Your task to perform on an android device: Open privacy settings Image 0: 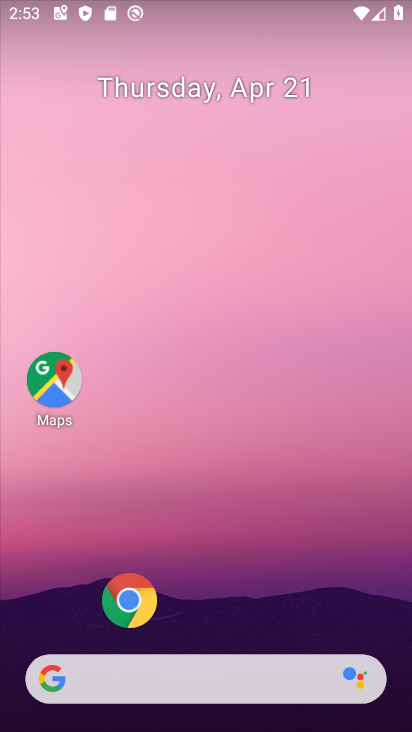
Step 0: click (131, 611)
Your task to perform on an android device: Open privacy settings Image 1: 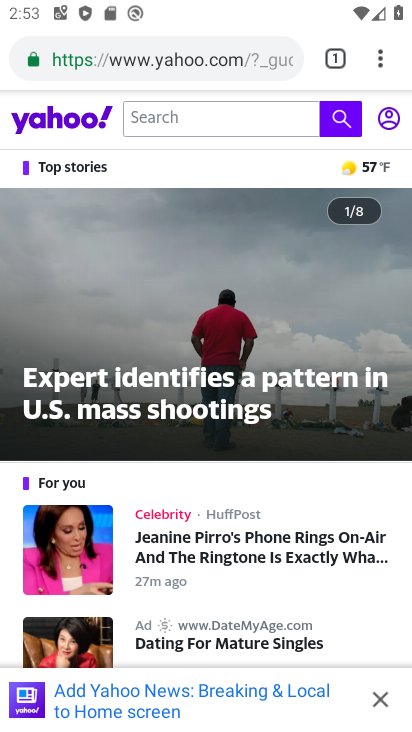
Step 1: click (379, 48)
Your task to perform on an android device: Open privacy settings Image 2: 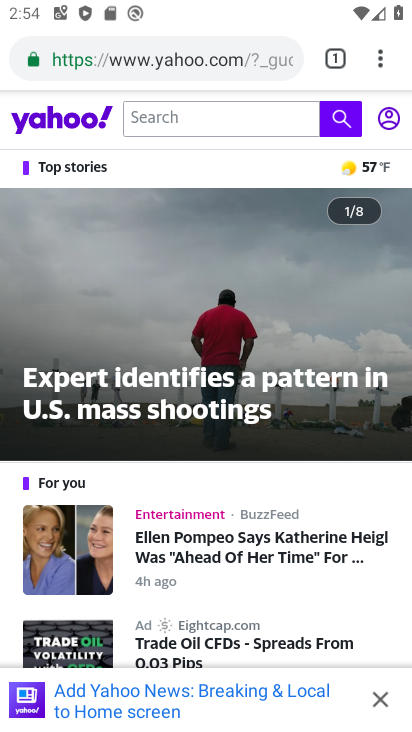
Step 2: click (383, 51)
Your task to perform on an android device: Open privacy settings Image 3: 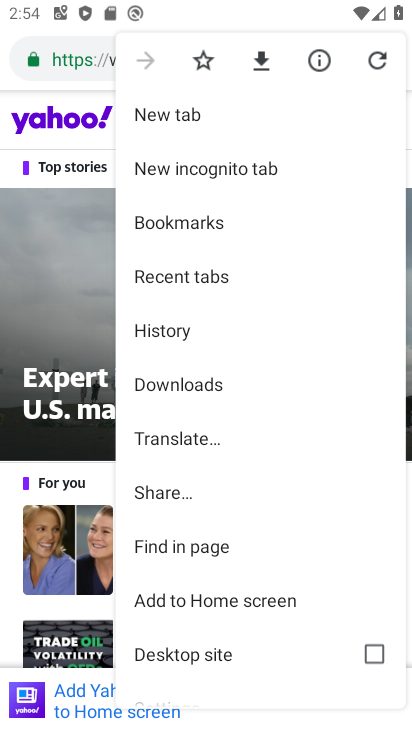
Step 3: drag from (204, 644) to (279, 297)
Your task to perform on an android device: Open privacy settings Image 4: 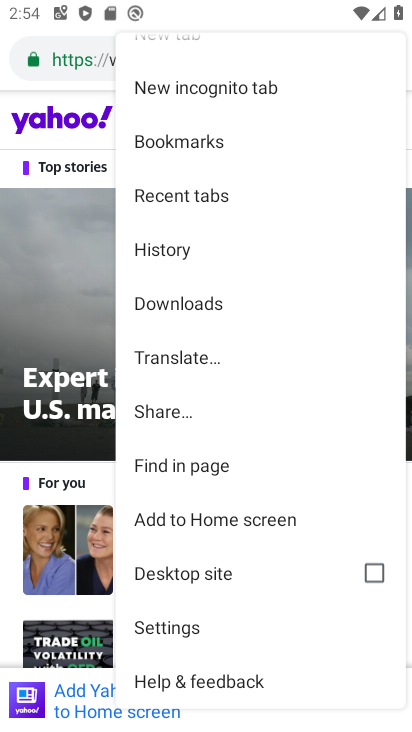
Step 4: click (191, 635)
Your task to perform on an android device: Open privacy settings Image 5: 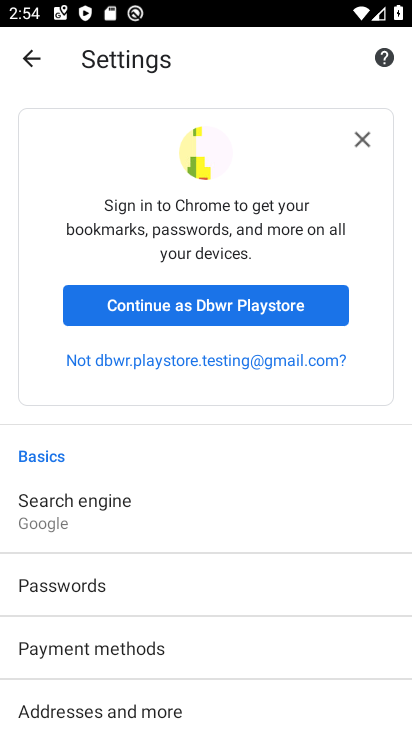
Step 5: drag from (108, 659) to (211, 325)
Your task to perform on an android device: Open privacy settings Image 6: 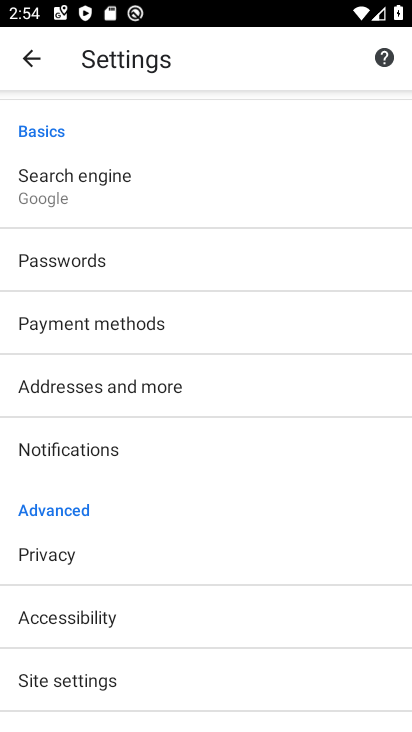
Step 6: click (72, 550)
Your task to perform on an android device: Open privacy settings Image 7: 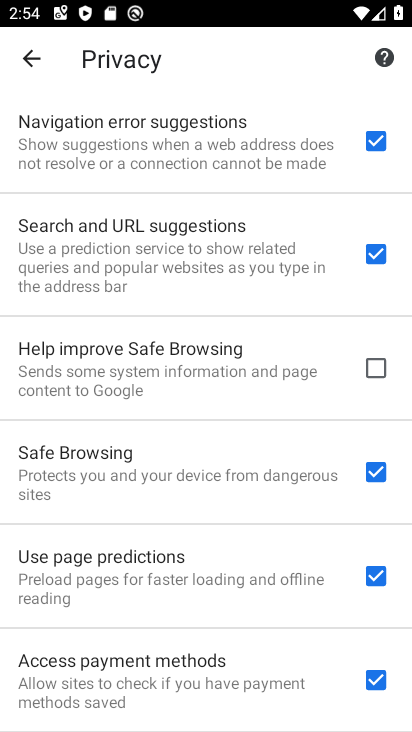
Step 7: task complete